Your task to perform on an android device: Go to eBay Image 0: 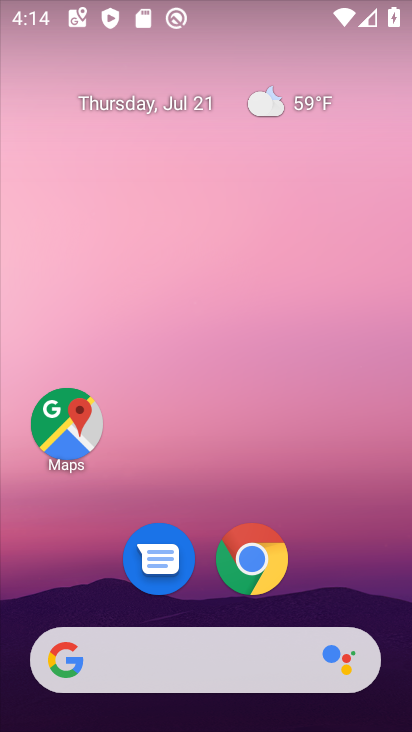
Step 0: click (257, 554)
Your task to perform on an android device: Go to eBay Image 1: 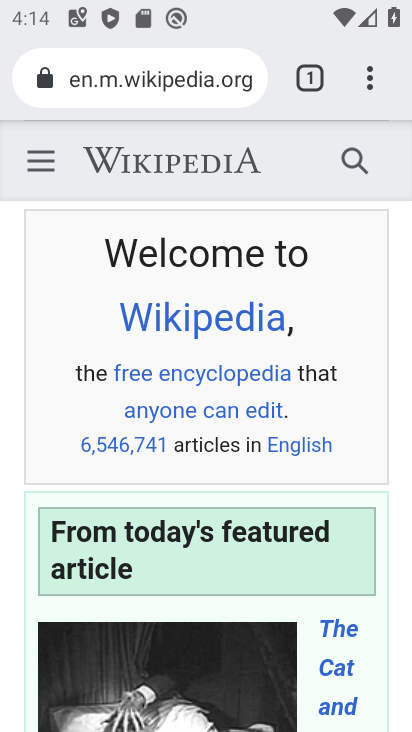
Step 1: click (302, 83)
Your task to perform on an android device: Go to eBay Image 2: 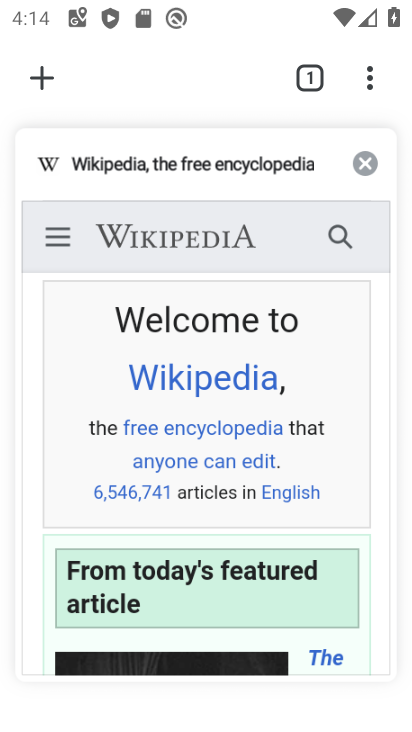
Step 2: click (36, 75)
Your task to perform on an android device: Go to eBay Image 3: 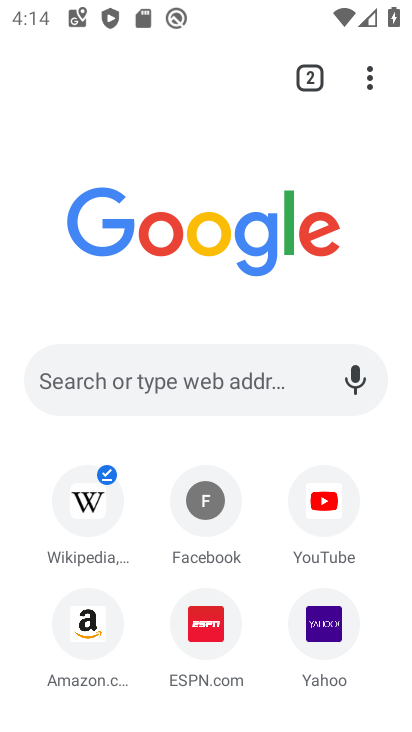
Step 3: click (168, 368)
Your task to perform on an android device: Go to eBay Image 4: 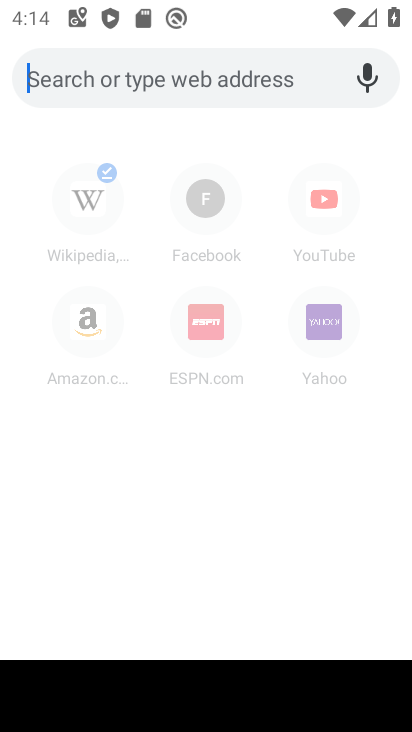
Step 4: type "ebay"
Your task to perform on an android device: Go to eBay Image 5: 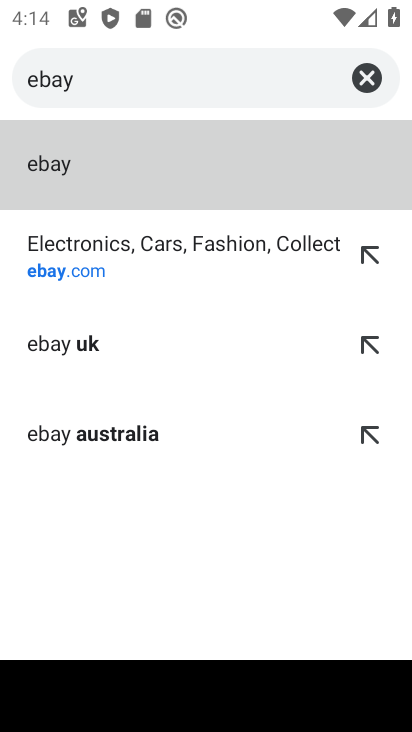
Step 5: click (104, 261)
Your task to perform on an android device: Go to eBay Image 6: 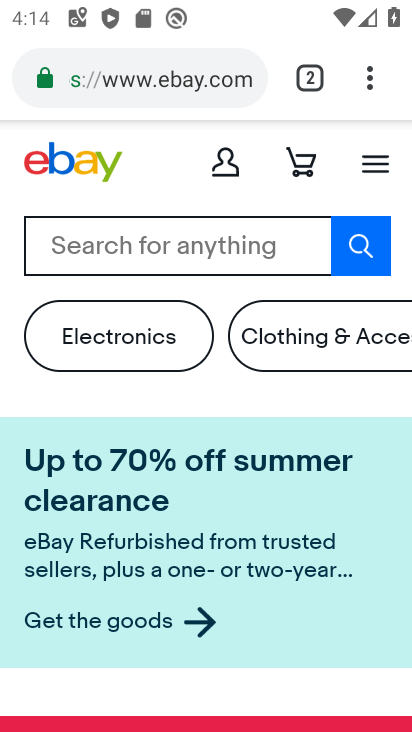
Step 6: task complete